Your task to perform on an android device: turn on showing notifications on the lock screen Image 0: 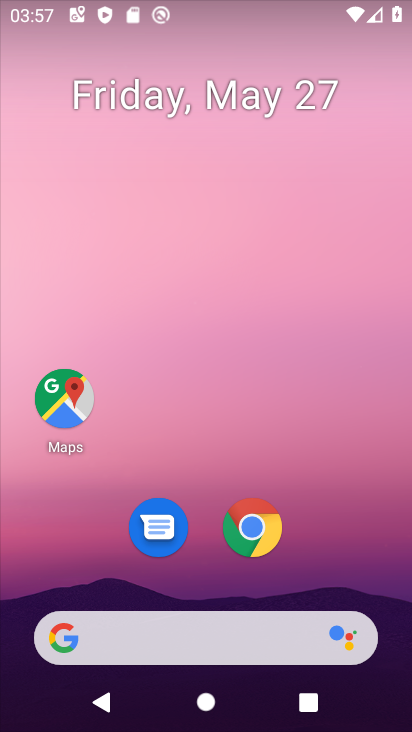
Step 0: drag from (367, 533) to (226, 40)
Your task to perform on an android device: turn on showing notifications on the lock screen Image 1: 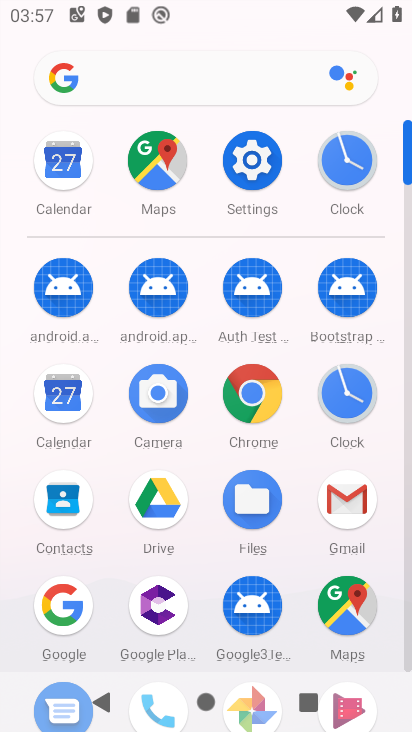
Step 1: click (243, 150)
Your task to perform on an android device: turn on showing notifications on the lock screen Image 2: 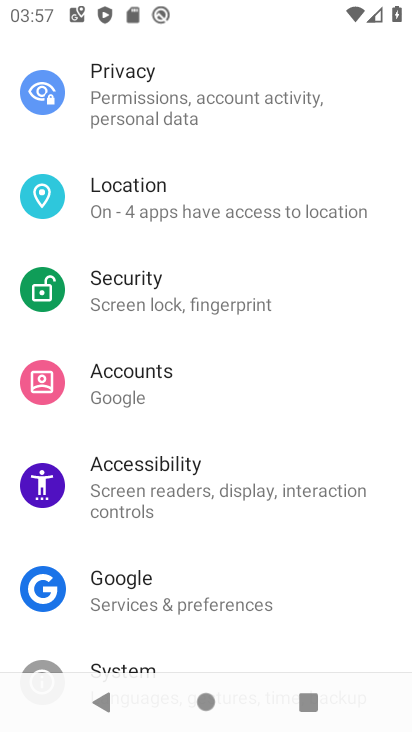
Step 2: drag from (241, 141) to (245, 651)
Your task to perform on an android device: turn on showing notifications on the lock screen Image 3: 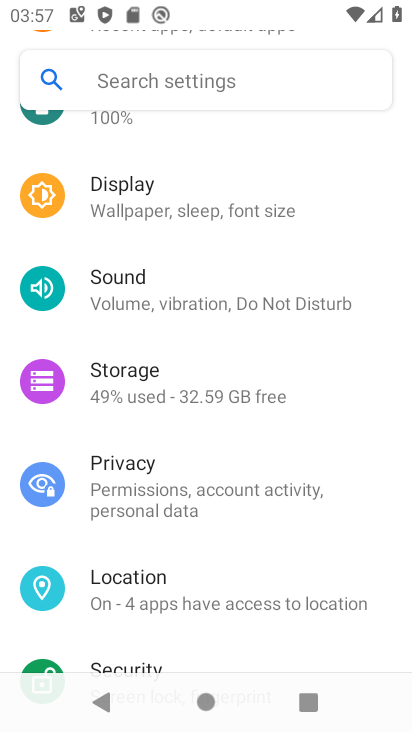
Step 3: drag from (176, 297) to (163, 731)
Your task to perform on an android device: turn on showing notifications on the lock screen Image 4: 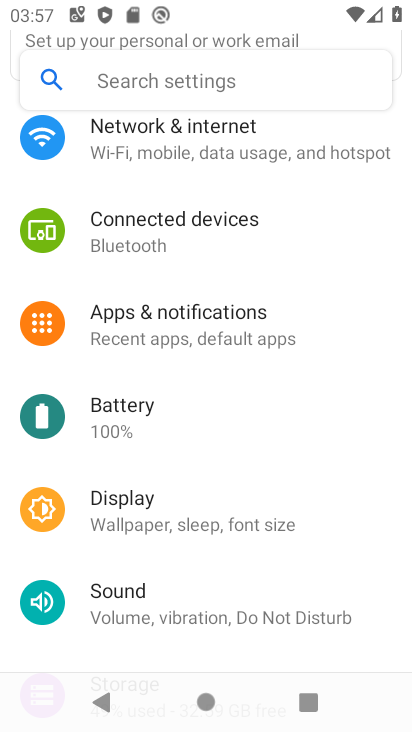
Step 4: drag from (245, 369) to (210, 702)
Your task to perform on an android device: turn on showing notifications on the lock screen Image 5: 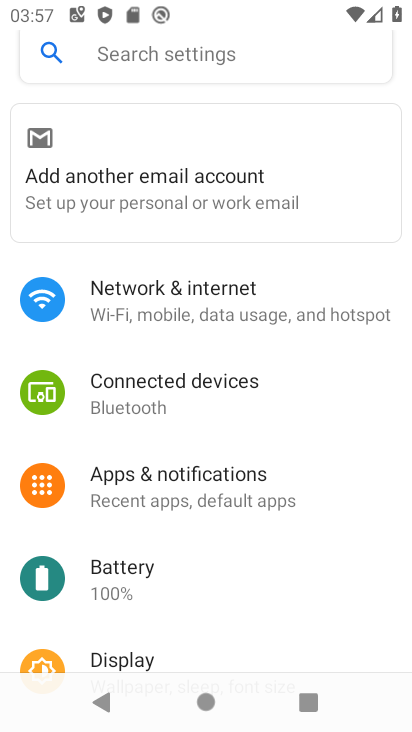
Step 5: click (175, 522)
Your task to perform on an android device: turn on showing notifications on the lock screen Image 6: 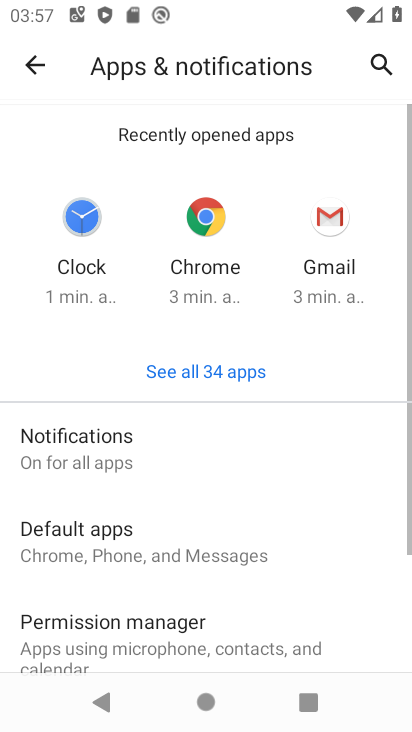
Step 6: click (84, 434)
Your task to perform on an android device: turn on showing notifications on the lock screen Image 7: 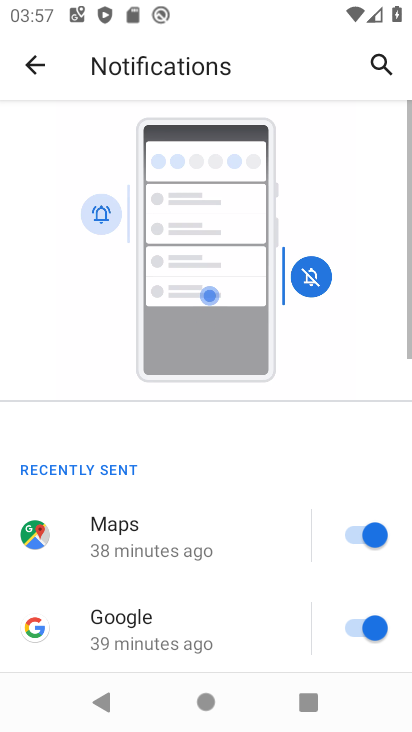
Step 7: drag from (177, 615) to (137, 109)
Your task to perform on an android device: turn on showing notifications on the lock screen Image 8: 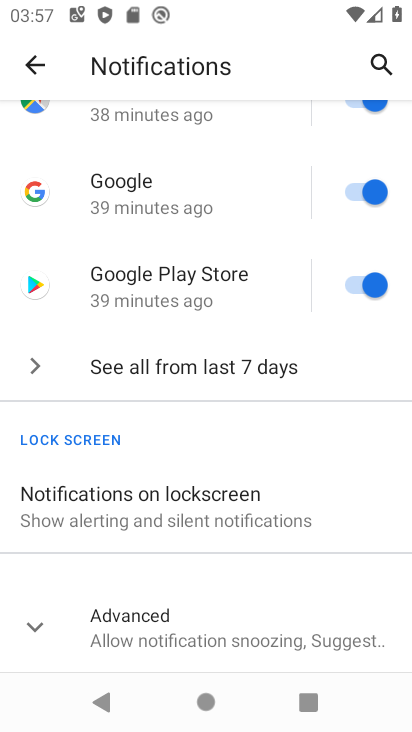
Step 8: click (164, 518)
Your task to perform on an android device: turn on showing notifications on the lock screen Image 9: 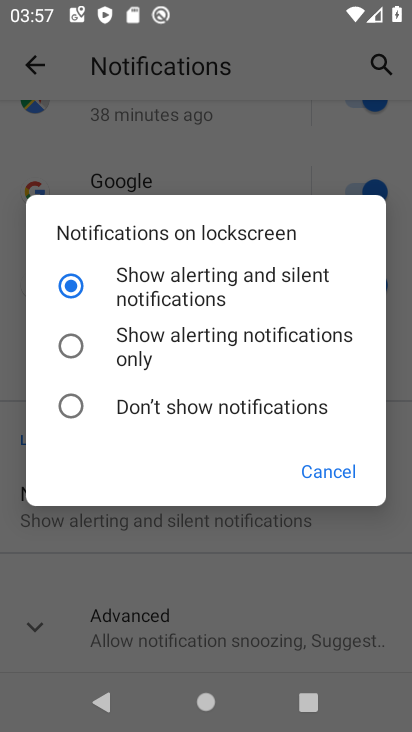
Step 9: click (174, 341)
Your task to perform on an android device: turn on showing notifications on the lock screen Image 10: 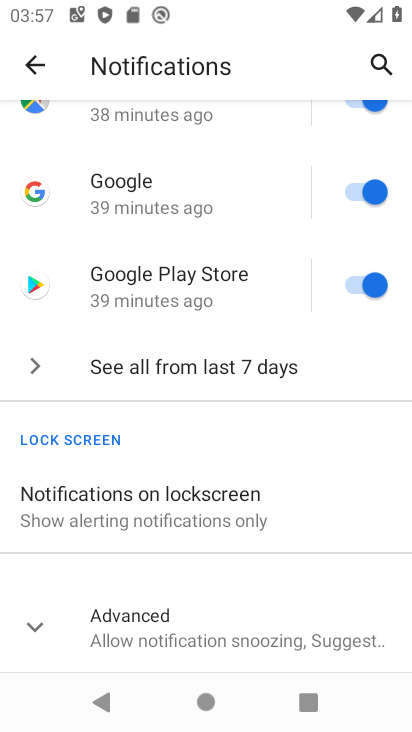
Step 10: task complete